Your task to perform on an android device: Go to CNN.com Image 0: 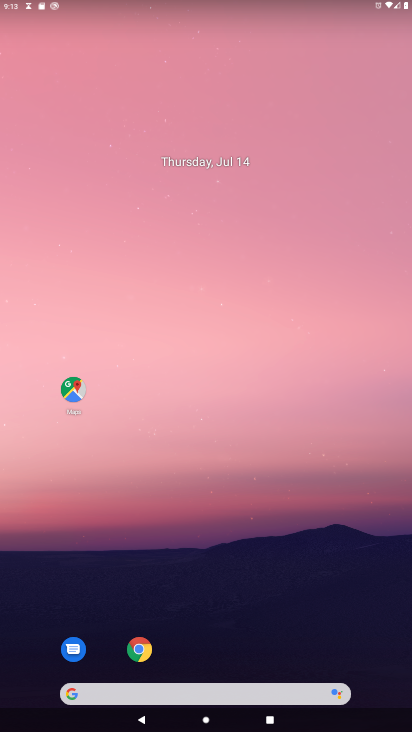
Step 0: click (142, 662)
Your task to perform on an android device: Go to CNN.com Image 1: 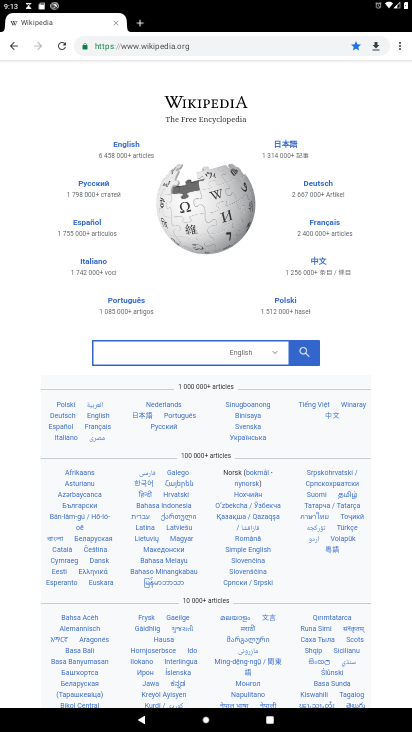
Step 1: click (232, 48)
Your task to perform on an android device: Go to CNN.com Image 2: 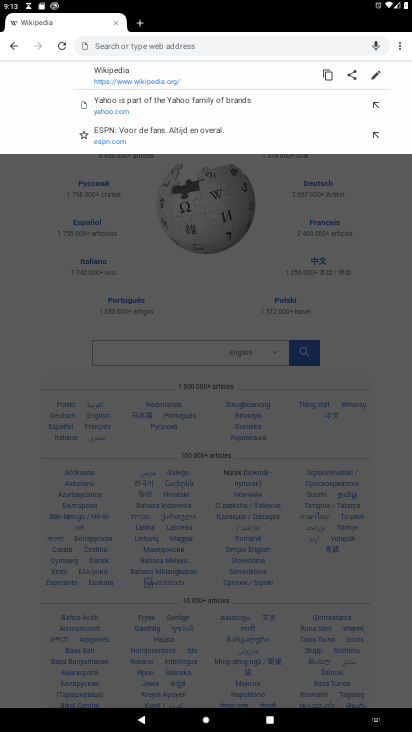
Step 2: type "CNN.com"
Your task to perform on an android device: Go to CNN.com Image 3: 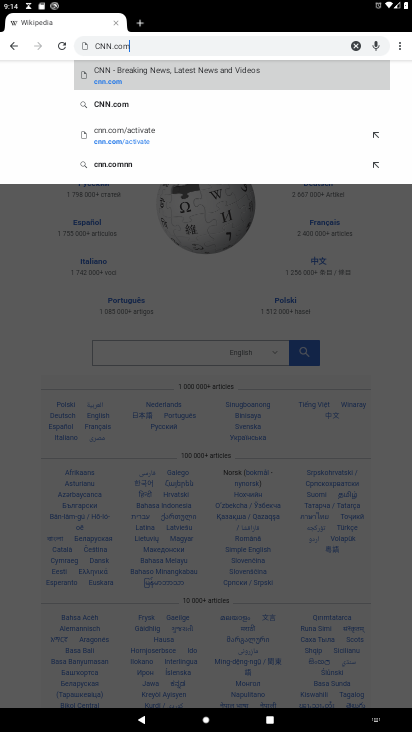
Step 3: click (145, 87)
Your task to perform on an android device: Go to CNN.com Image 4: 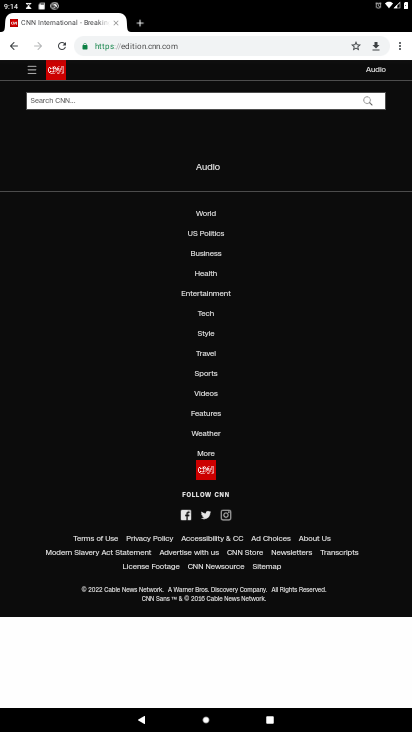
Step 4: task complete